Your task to perform on an android device: turn off notifications settings in the gmail app Image 0: 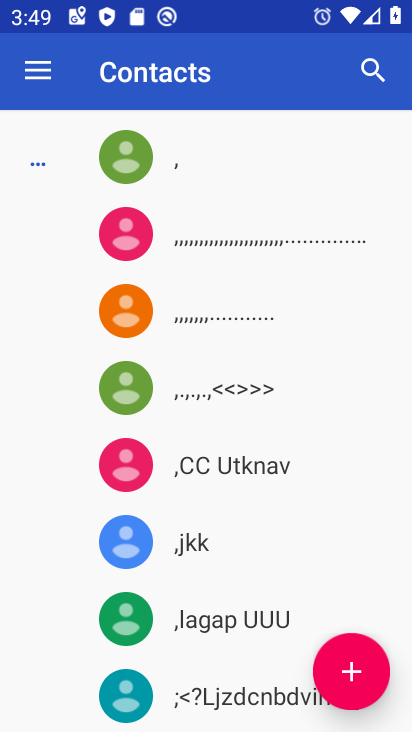
Step 0: press home button
Your task to perform on an android device: turn off notifications settings in the gmail app Image 1: 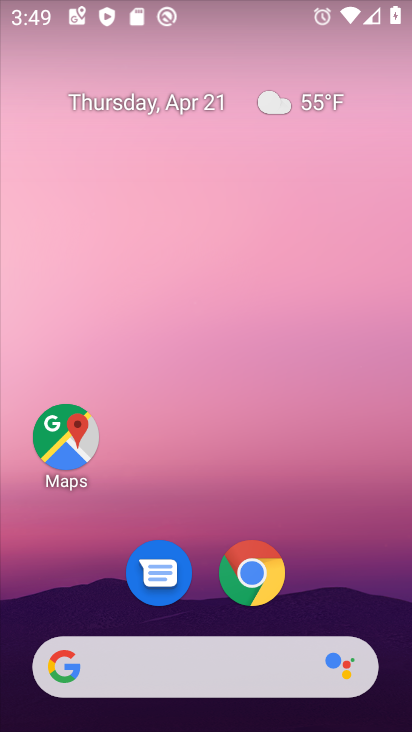
Step 1: drag from (382, 621) to (298, 62)
Your task to perform on an android device: turn off notifications settings in the gmail app Image 2: 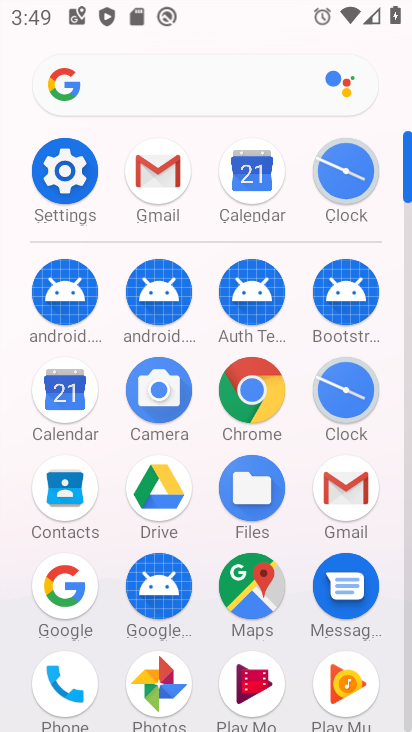
Step 2: click (342, 485)
Your task to perform on an android device: turn off notifications settings in the gmail app Image 3: 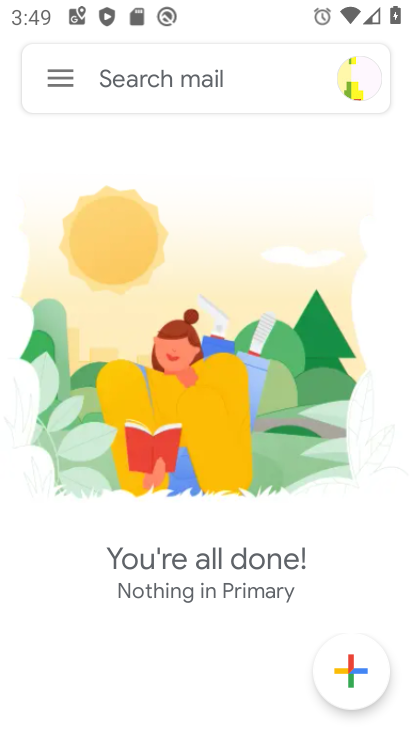
Step 3: click (53, 73)
Your task to perform on an android device: turn off notifications settings in the gmail app Image 4: 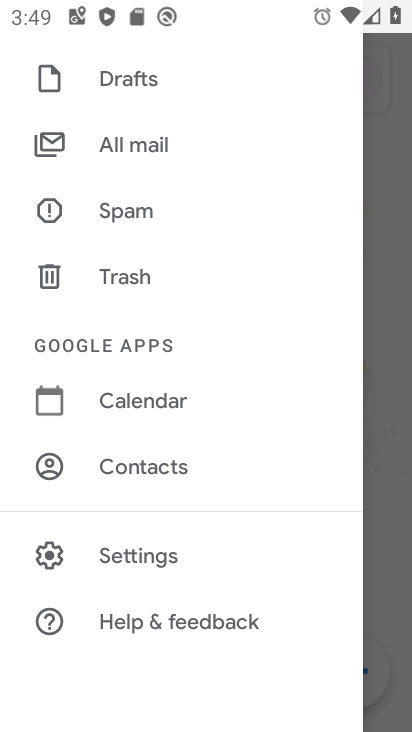
Step 4: click (139, 561)
Your task to perform on an android device: turn off notifications settings in the gmail app Image 5: 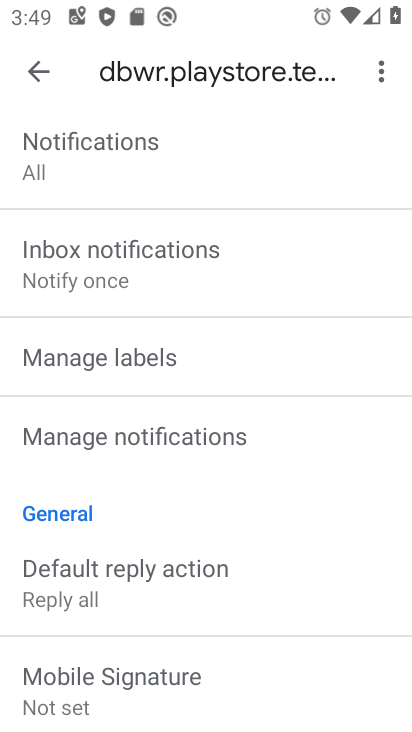
Step 5: click (128, 438)
Your task to perform on an android device: turn off notifications settings in the gmail app Image 6: 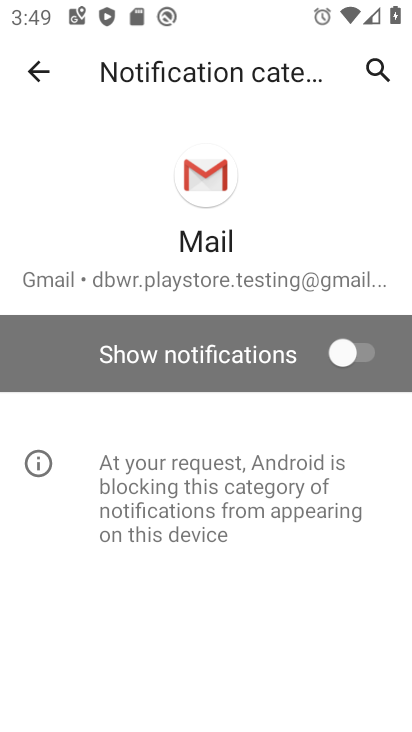
Step 6: task complete